Your task to perform on an android device: turn off location history Image 0: 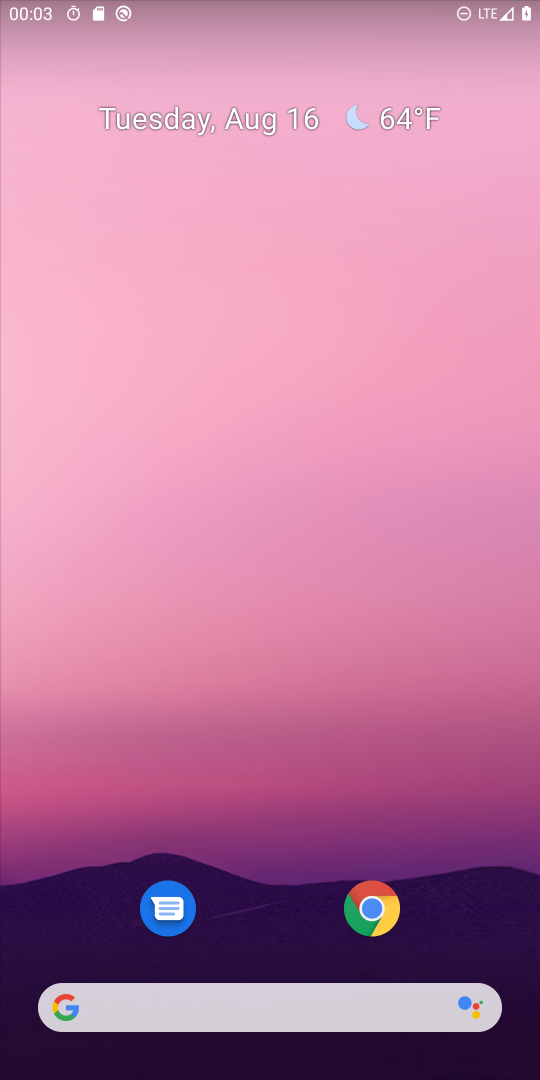
Step 0: drag from (282, 922) to (259, 3)
Your task to perform on an android device: turn off location history Image 1: 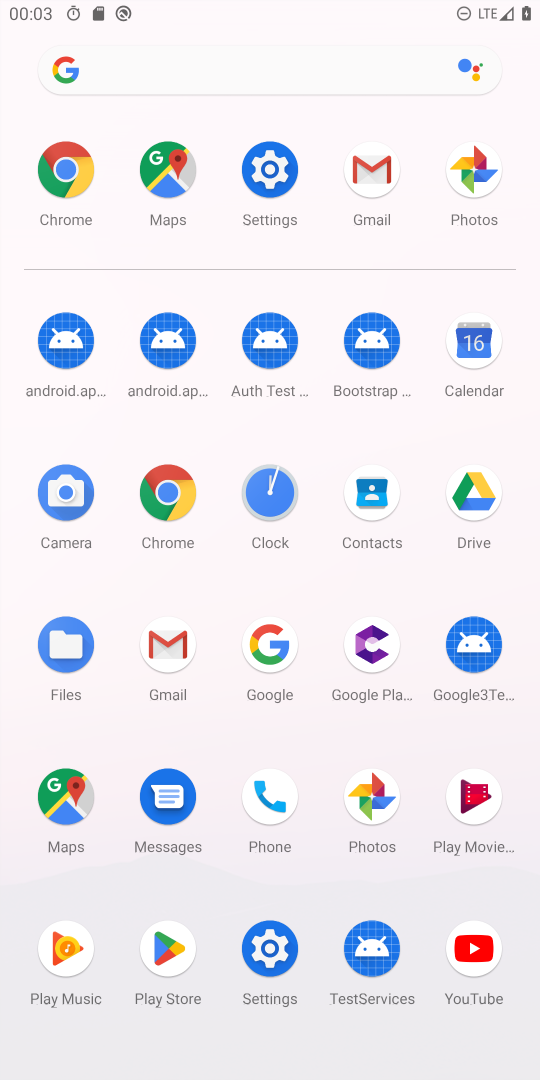
Step 1: click (281, 217)
Your task to perform on an android device: turn off location history Image 2: 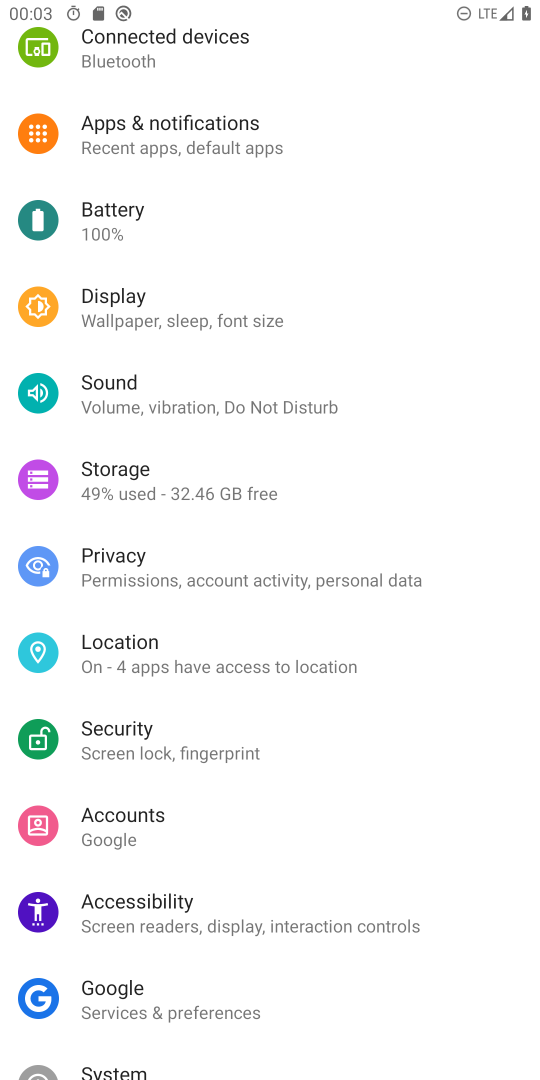
Step 2: click (159, 648)
Your task to perform on an android device: turn off location history Image 3: 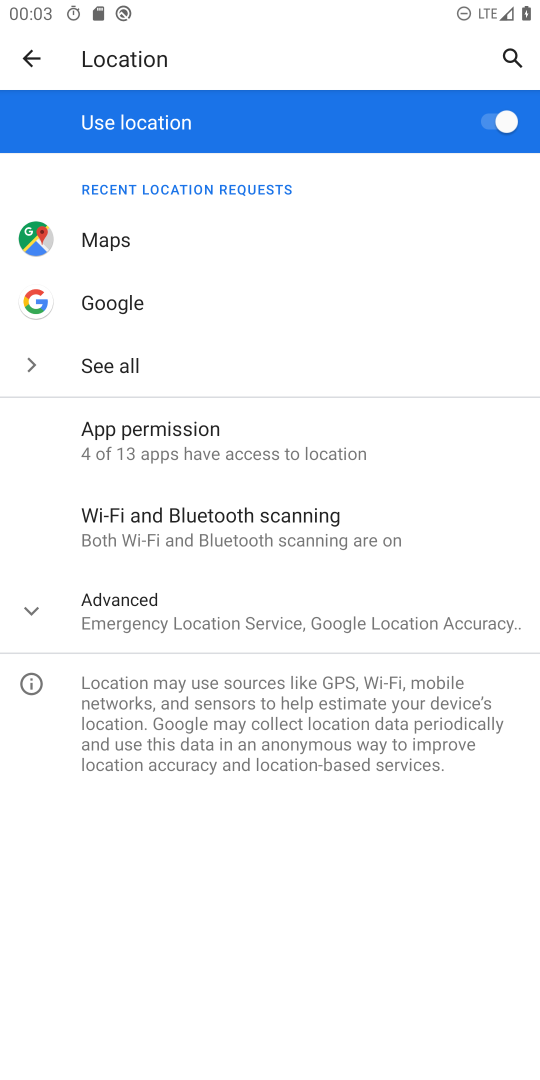
Step 3: click (241, 602)
Your task to perform on an android device: turn off location history Image 4: 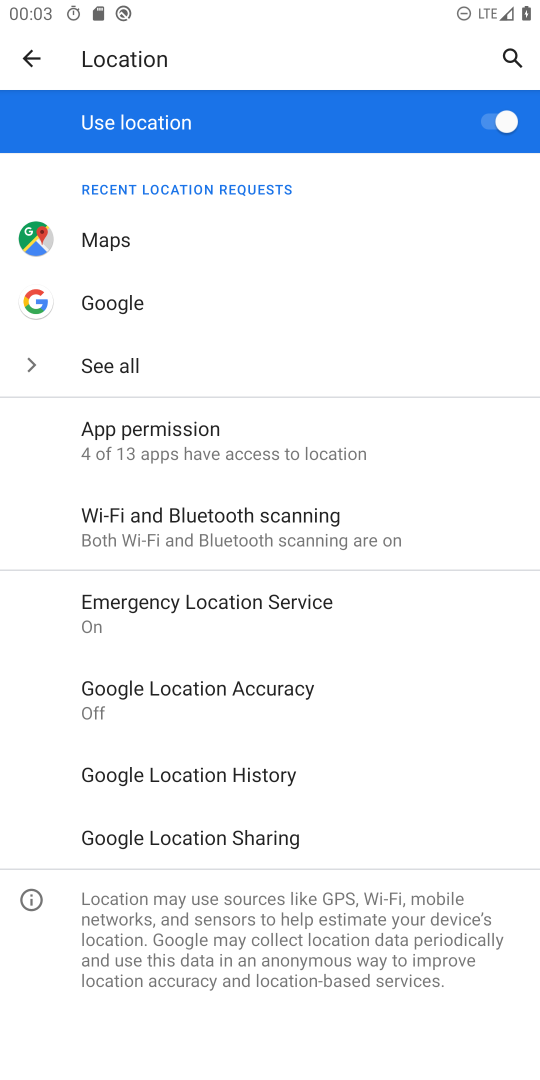
Step 4: click (314, 767)
Your task to perform on an android device: turn off location history Image 5: 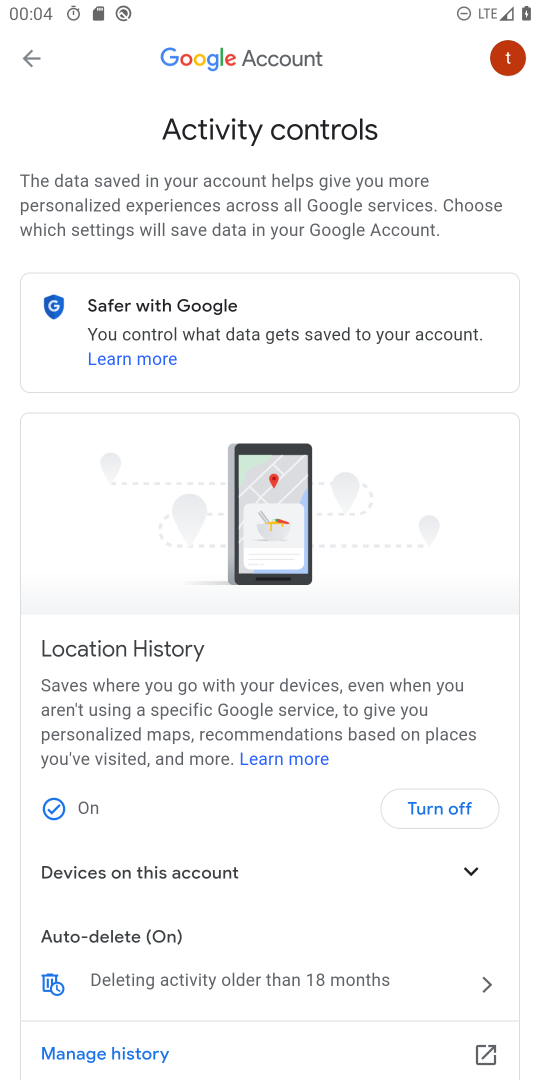
Step 5: click (460, 815)
Your task to perform on an android device: turn off location history Image 6: 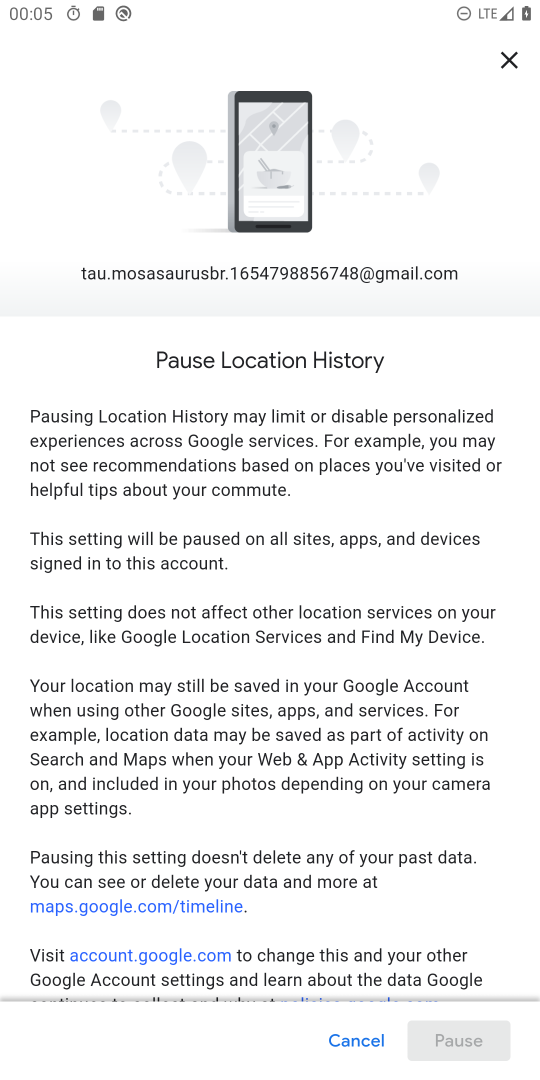
Step 6: drag from (410, 947) to (405, 48)
Your task to perform on an android device: turn off location history Image 7: 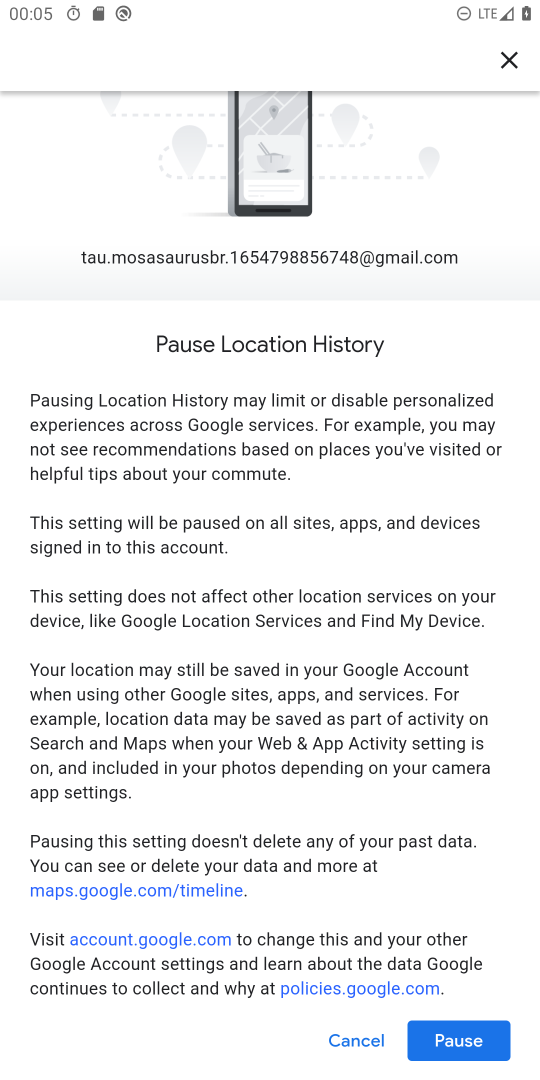
Step 7: click (440, 1033)
Your task to perform on an android device: turn off location history Image 8: 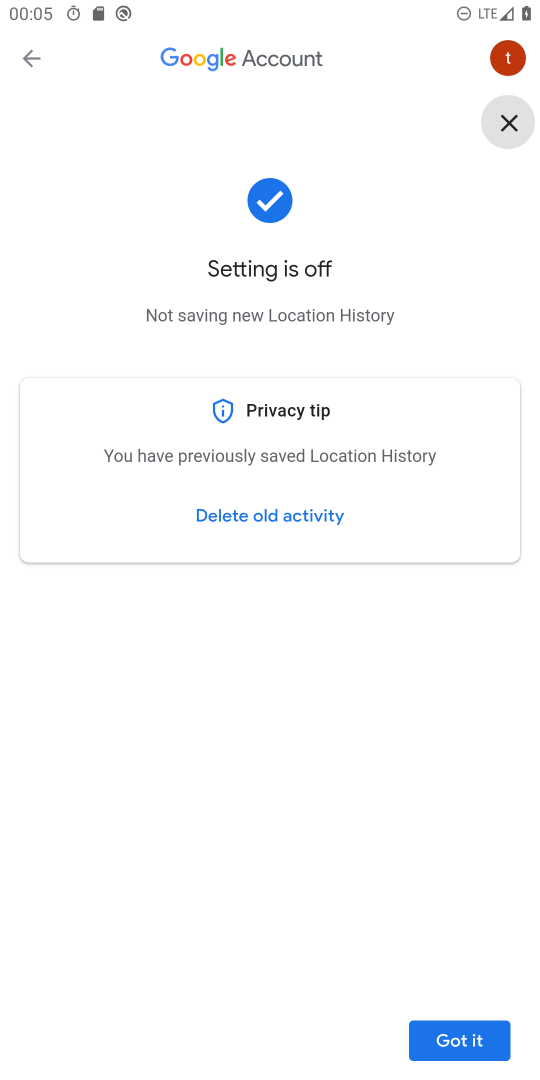
Step 8: click (482, 1043)
Your task to perform on an android device: turn off location history Image 9: 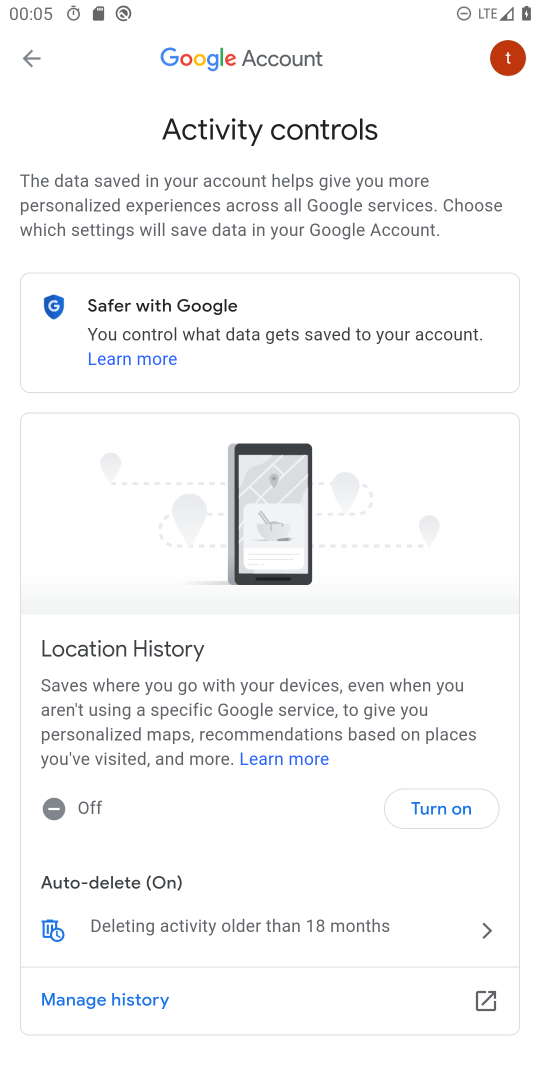
Step 9: task complete